Your task to perform on an android device: change notifications settings Image 0: 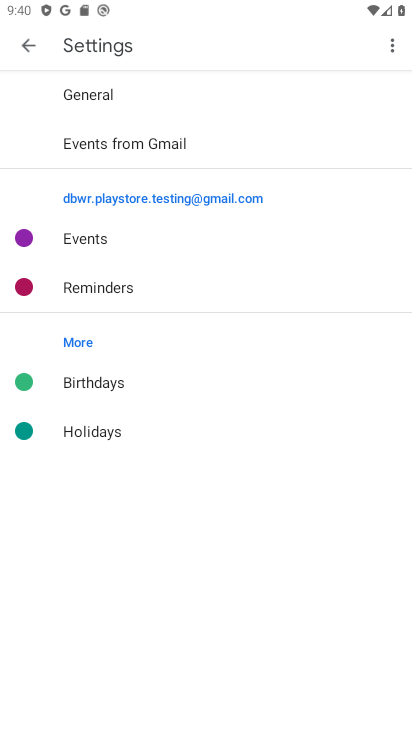
Step 0: press home button
Your task to perform on an android device: change notifications settings Image 1: 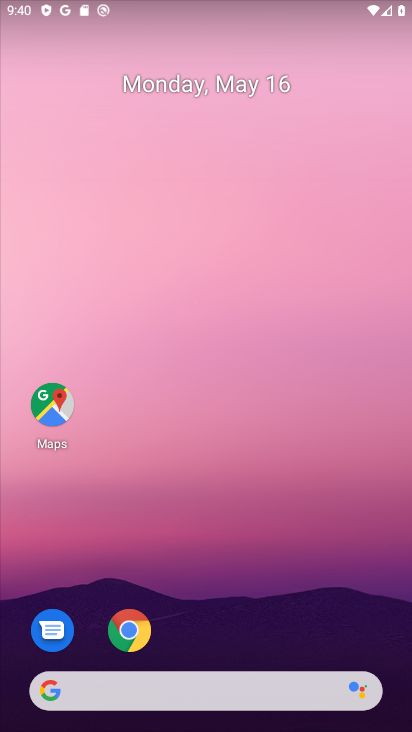
Step 1: drag from (250, 598) to (241, 43)
Your task to perform on an android device: change notifications settings Image 2: 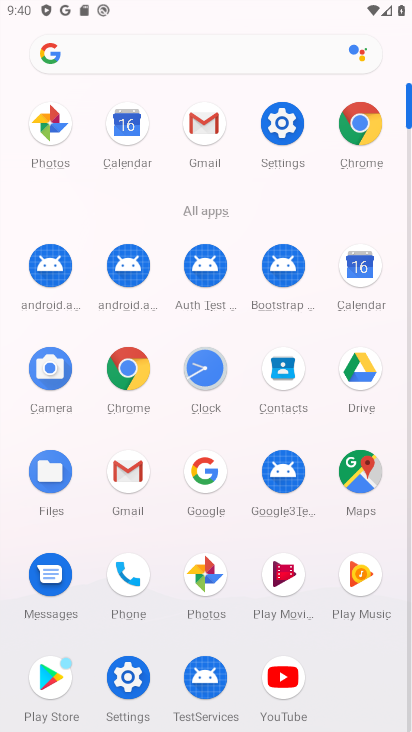
Step 2: click (272, 122)
Your task to perform on an android device: change notifications settings Image 3: 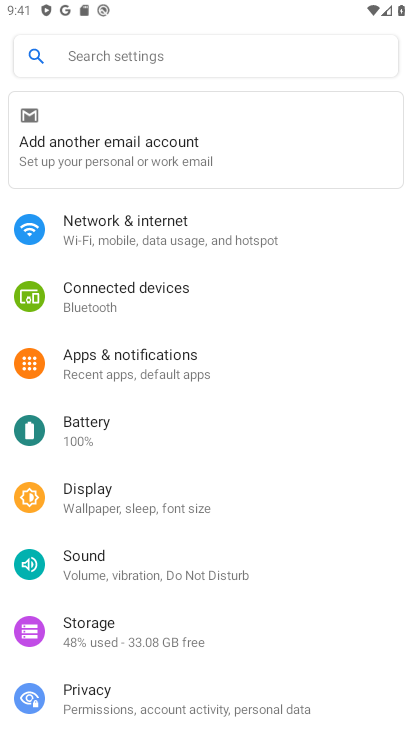
Step 3: click (181, 358)
Your task to perform on an android device: change notifications settings Image 4: 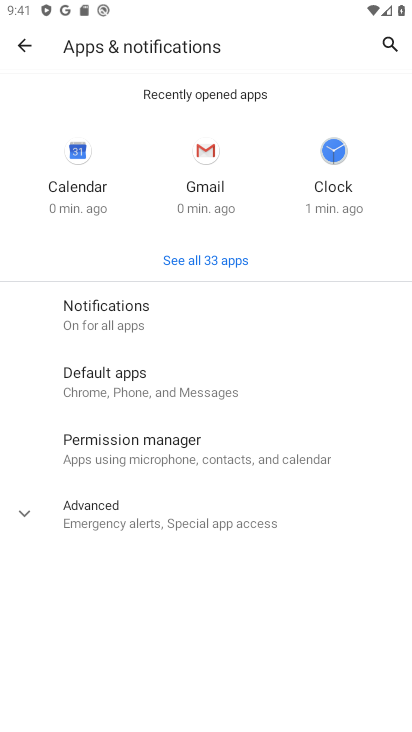
Step 4: click (139, 311)
Your task to perform on an android device: change notifications settings Image 5: 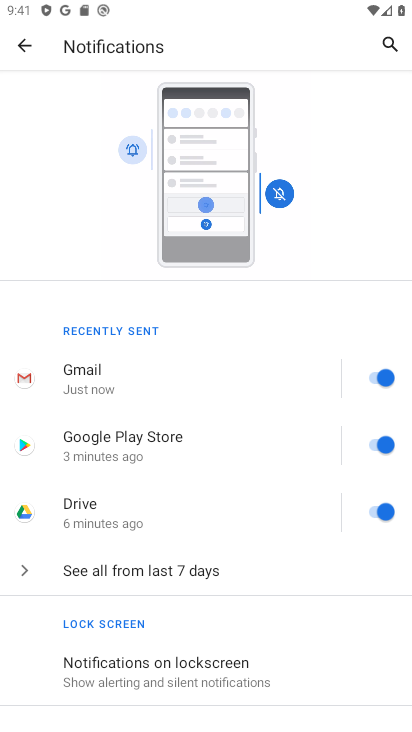
Step 5: drag from (246, 528) to (257, 408)
Your task to perform on an android device: change notifications settings Image 6: 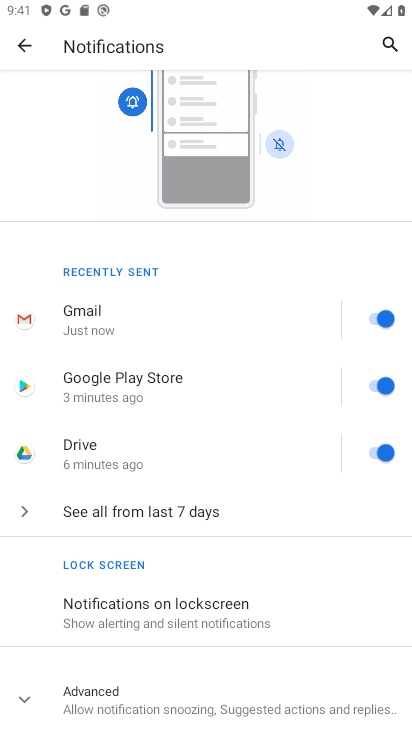
Step 6: click (227, 509)
Your task to perform on an android device: change notifications settings Image 7: 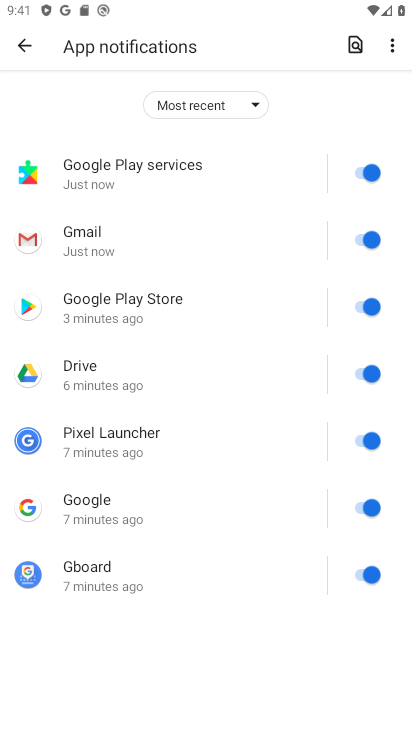
Step 7: click (356, 168)
Your task to perform on an android device: change notifications settings Image 8: 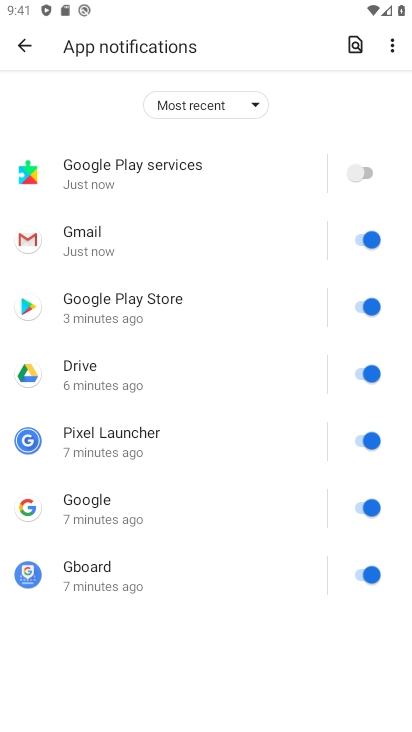
Step 8: click (351, 236)
Your task to perform on an android device: change notifications settings Image 9: 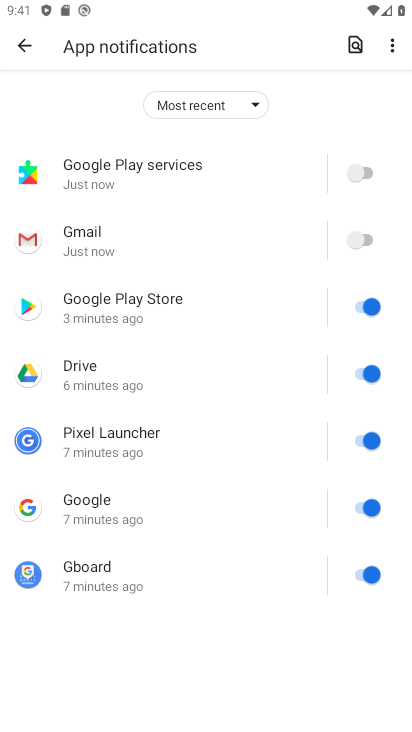
Step 9: click (362, 298)
Your task to perform on an android device: change notifications settings Image 10: 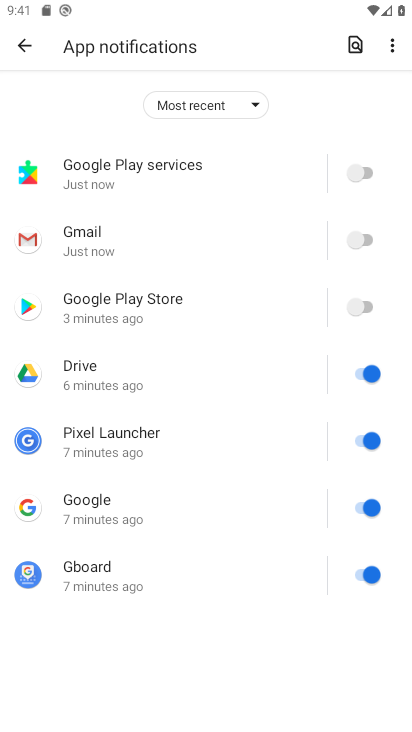
Step 10: click (378, 365)
Your task to perform on an android device: change notifications settings Image 11: 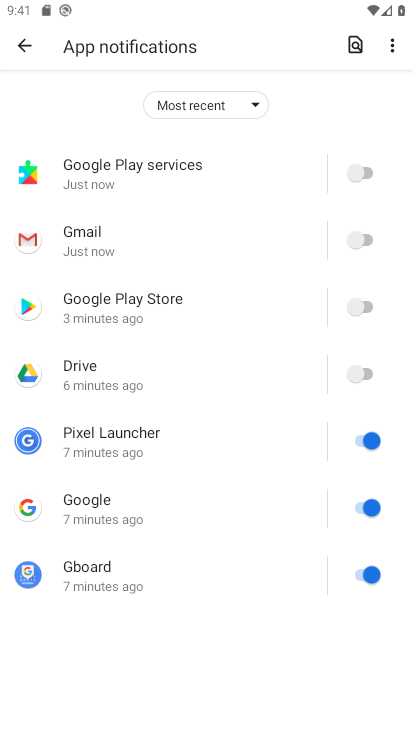
Step 11: click (375, 433)
Your task to perform on an android device: change notifications settings Image 12: 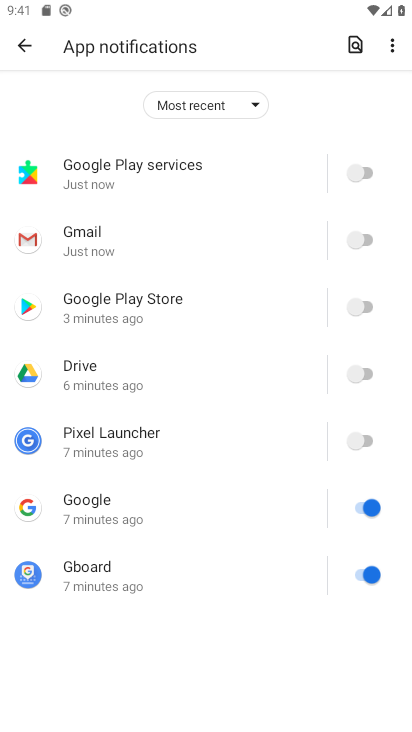
Step 12: click (373, 497)
Your task to perform on an android device: change notifications settings Image 13: 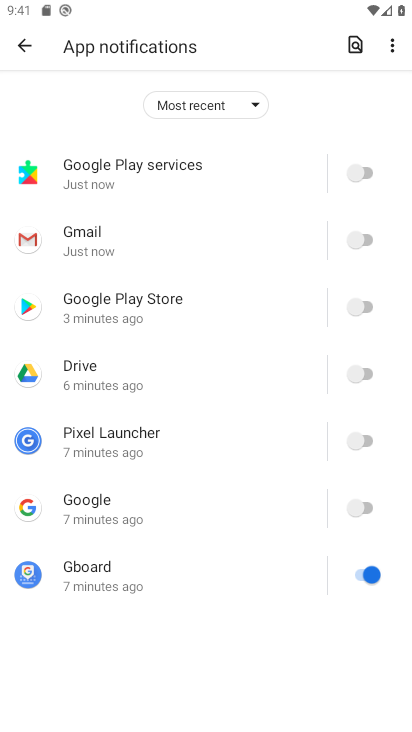
Step 13: click (365, 581)
Your task to perform on an android device: change notifications settings Image 14: 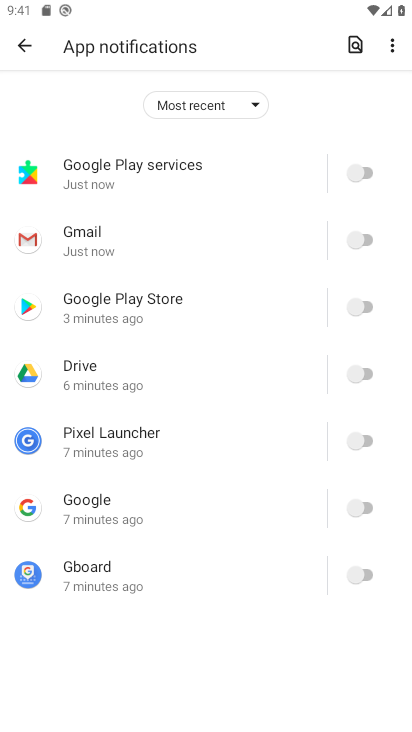
Step 14: task complete